Your task to perform on an android device: turn on airplane mode Image 0: 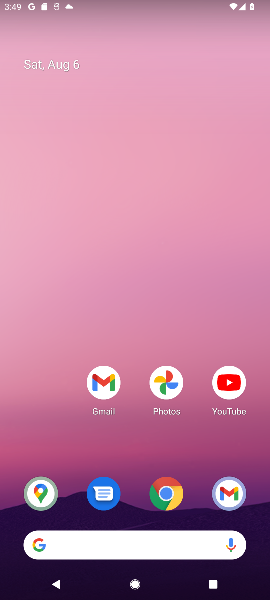
Step 0: drag from (177, 530) to (148, 129)
Your task to perform on an android device: turn on airplane mode Image 1: 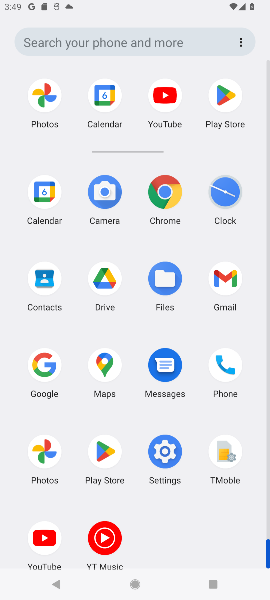
Step 1: drag from (169, 352) to (145, 207)
Your task to perform on an android device: turn on airplane mode Image 2: 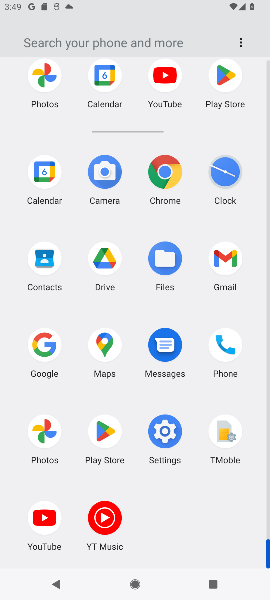
Step 2: click (167, 431)
Your task to perform on an android device: turn on airplane mode Image 3: 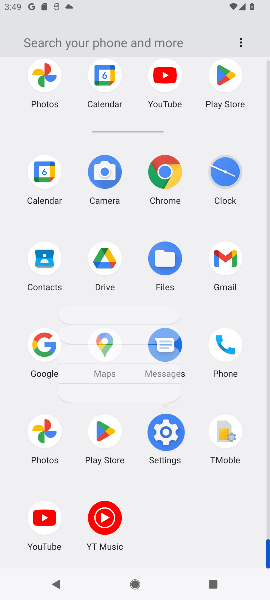
Step 3: click (167, 431)
Your task to perform on an android device: turn on airplane mode Image 4: 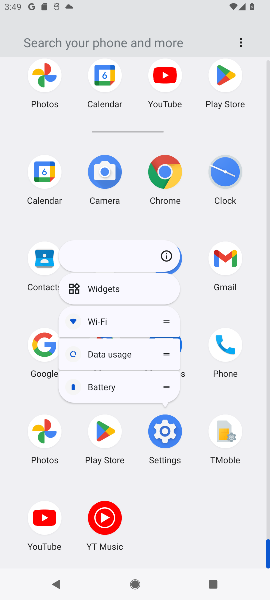
Step 4: click (167, 431)
Your task to perform on an android device: turn on airplane mode Image 5: 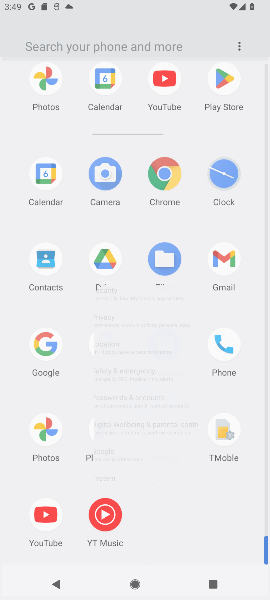
Step 5: click (168, 439)
Your task to perform on an android device: turn on airplane mode Image 6: 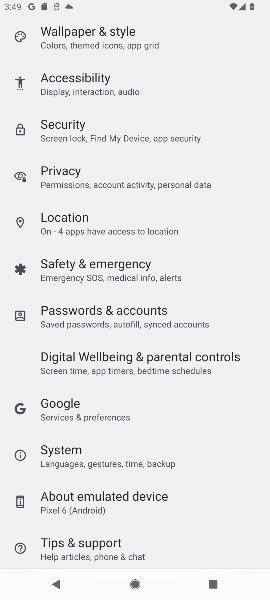
Step 6: click (168, 439)
Your task to perform on an android device: turn on airplane mode Image 7: 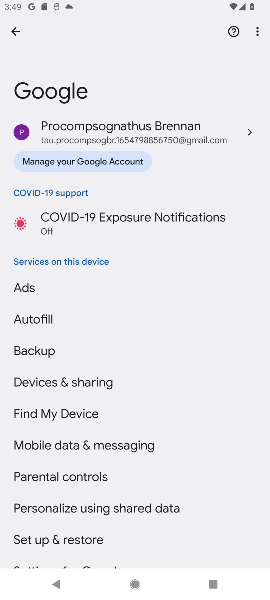
Step 7: click (11, 28)
Your task to perform on an android device: turn on airplane mode Image 8: 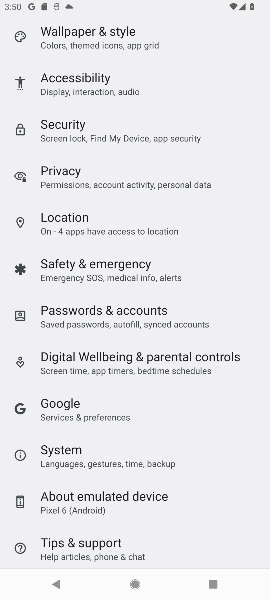
Step 8: drag from (86, 85) to (87, 348)
Your task to perform on an android device: turn on airplane mode Image 9: 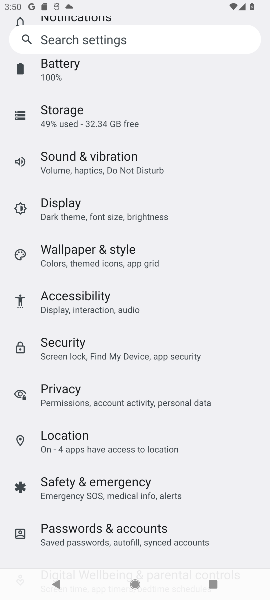
Step 9: drag from (79, 83) to (85, 380)
Your task to perform on an android device: turn on airplane mode Image 10: 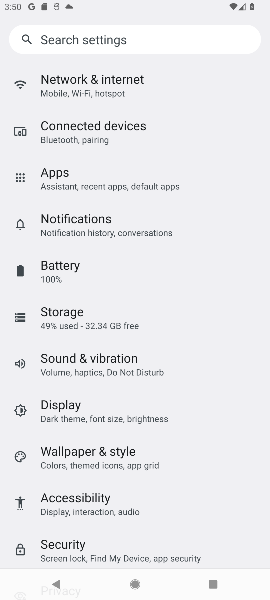
Step 10: click (86, 90)
Your task to perform on an android device: turn on airplane mode Image 11: 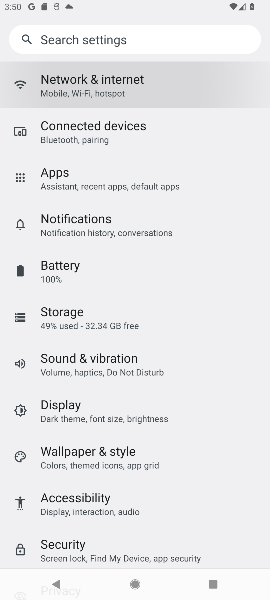
Step 11: click (86, 90)
Your task to perform on an android device: turn on airplane mode Image 12: 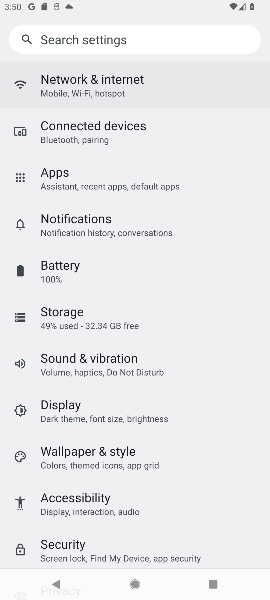
Step 12: click (88, 88)
Your task to perform on an android device: turn on airplane mode Image 13: 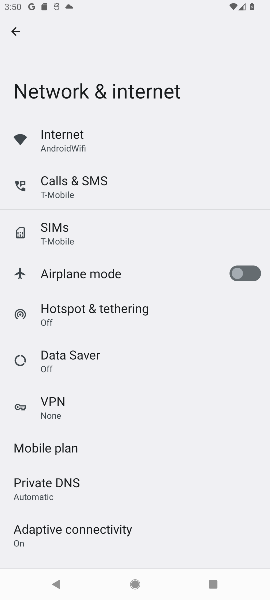
Step 13: click (239, 270)
Your task to perform on an android device: turn on airplane mode Image 14: 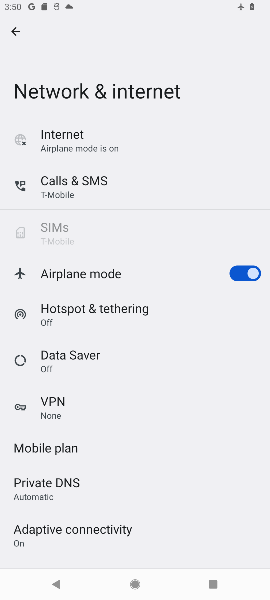
Step 14: task complete